Your task to perform on an android device: Open calendar and show me the third week of next month Image 0: 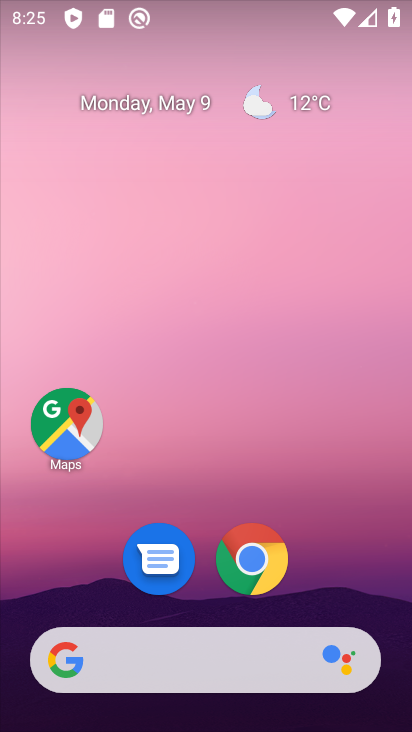
Step 0: drag from (379, 666) to (258, 115)
Your task to perform on an android device: Open calendar and show me the third week of next month Image 1: 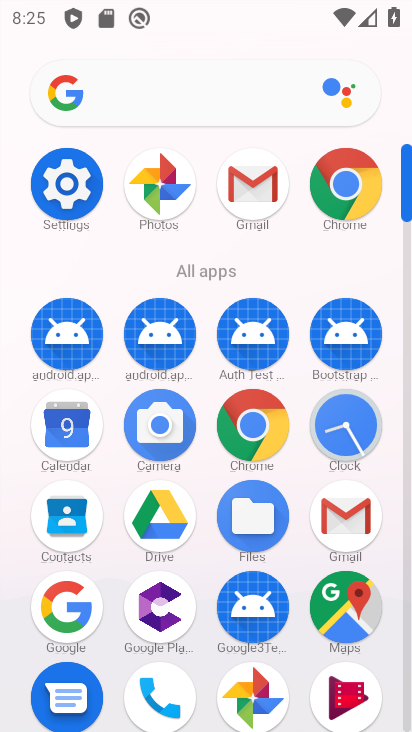
Step 1: click (73, 425)
Your task to perform on an android device: Open calendar and show me the third week of next month Image 2: 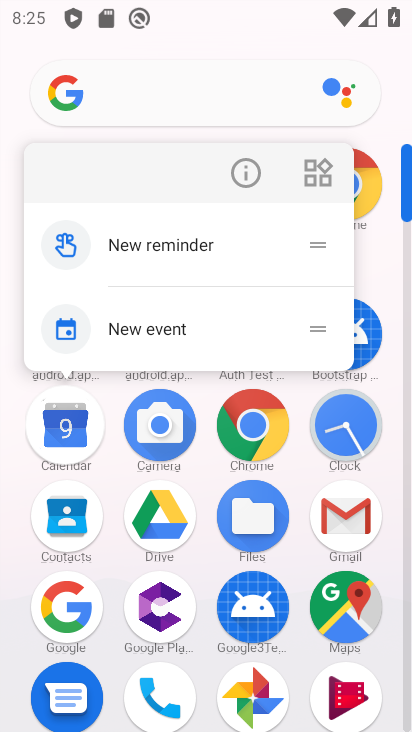
Step 2: click (57, 424)
Your task to perform on an android device: Open calendar and show me the third week of next month Image 3: 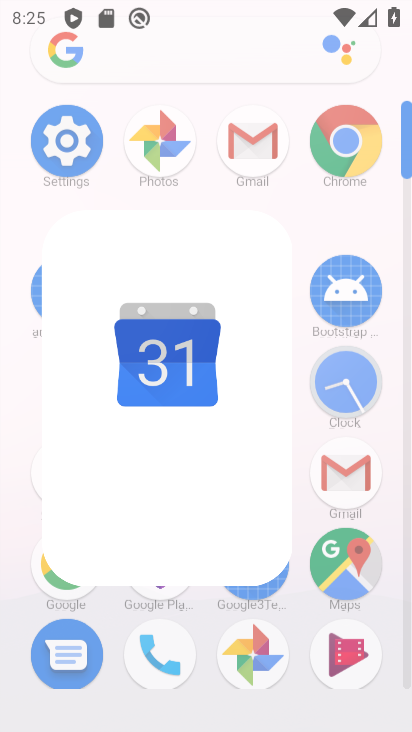
Step 3: click (53, 417)
Your task to perform on an android device: Open calendar and show me the third week of next month Image 4: 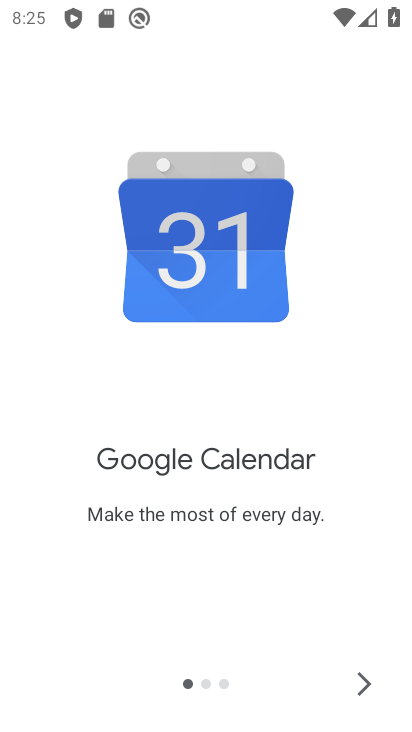
Step 4: click (355, 685)
Your task to perform on an android device: Open calendar and show me the third week of next month Image 5: 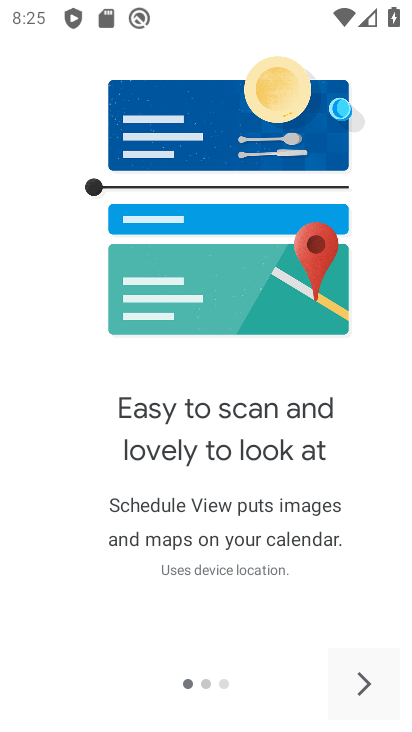
Step 5: click (355, 685)
Your task to perform on an android device: Open calendar and show me the third week of next month Image 6: 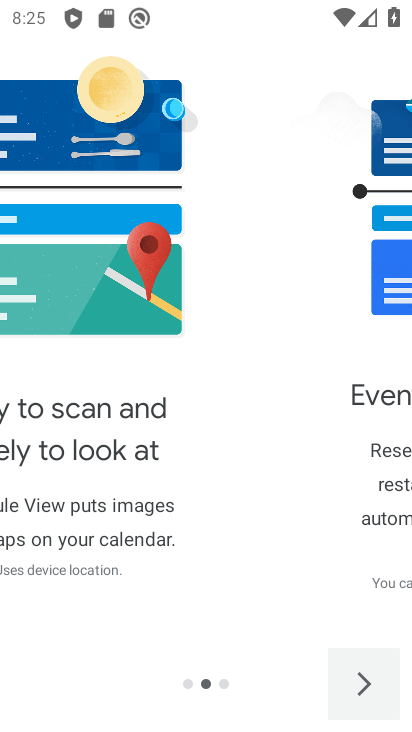
Step 6: click (355, 684)
Your task to perform on an android device: Open calendar and show me the third week of next month Image 7: 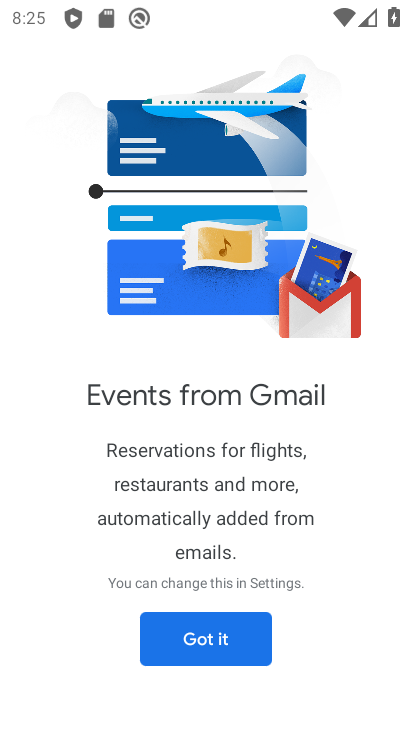
Step 7: click (208, 647)
Your task to perform on an android device: Open calendar and show me the third week of next month Image 8: 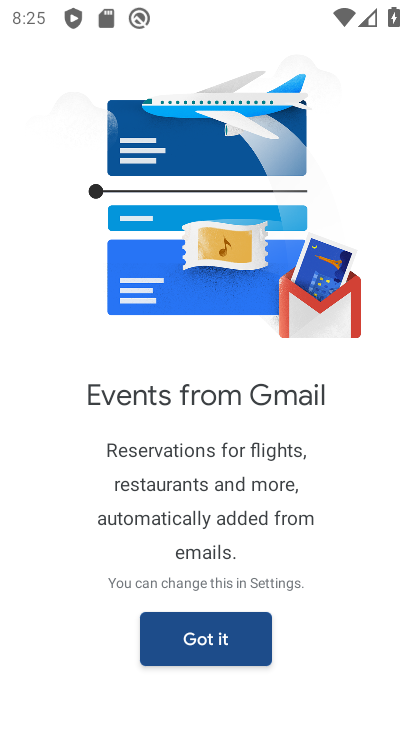
Step 8: click (208, 646)
Your task to perform on an android device: Open calendar and show me the third week of next month Image 9: 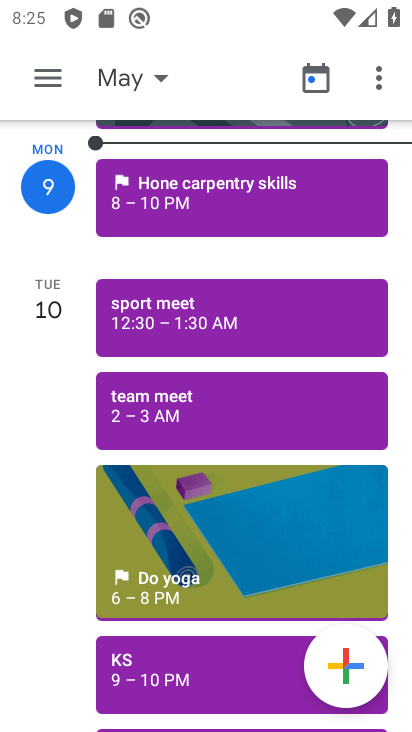
Step 9: drag from (206, 403) to (227, 222)
Your task to perform on an android device: Open calendar and show me the third week of next month Image 10: 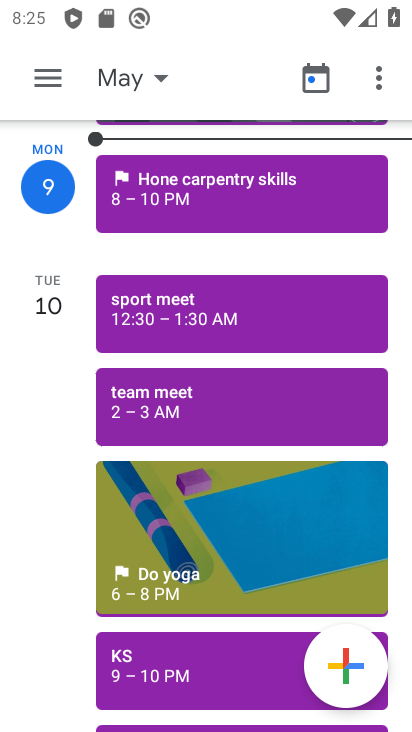
Step 10: drag from (187, 449) to (181, 269)
Your task to perform on an android device: Open calendar and show me the third week of next month Image 11: 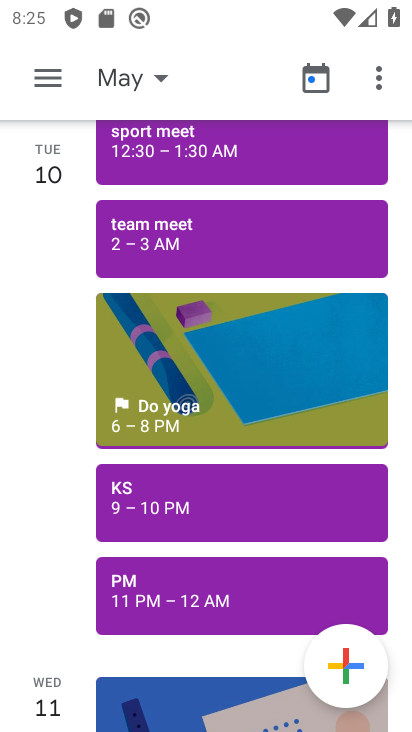
Step 11: drag from (166, 426) to (146, 139)
Your task to perform on an android device: Open calendar and show me the third week of next month Image 12: 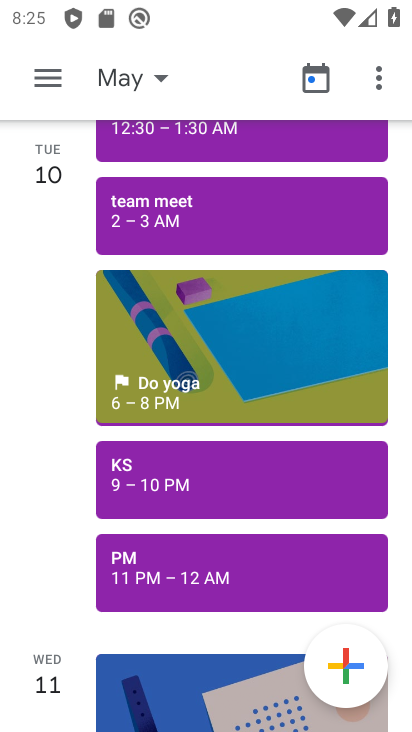
Step 12: drag from (107, 259) to (147, 500)
Your task to perform on an android device: Open calendar and show me the third week of next month Image 13: 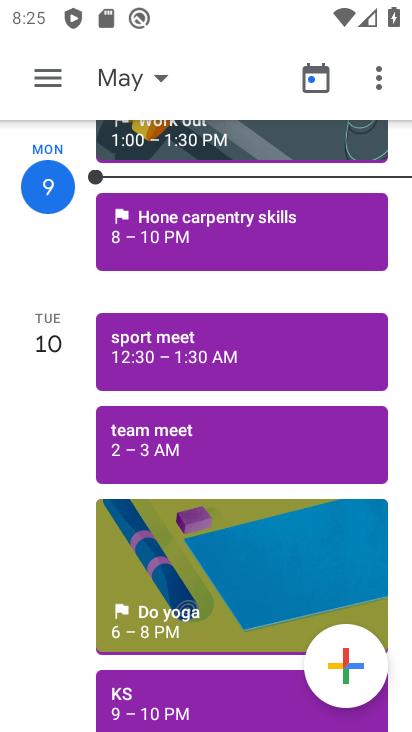
Step 13: click (161, 77)
Your task to perform on an android device: Open calendar and show me the third week of next month Image 14: 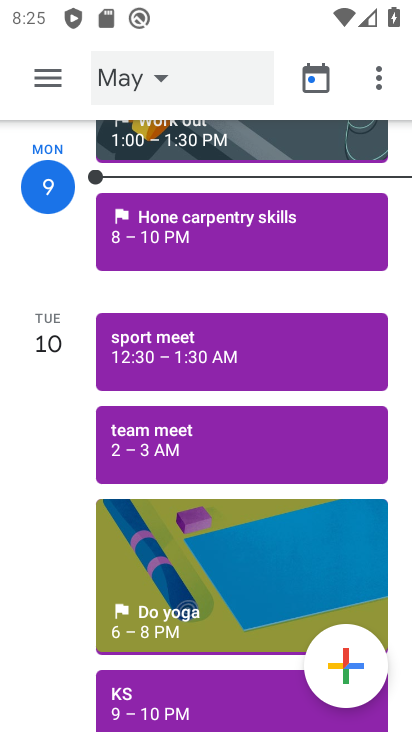
Step 14: click (162, 79)
Your task to perform on an android device: Open calendar and show me the third week of next month Image 15: 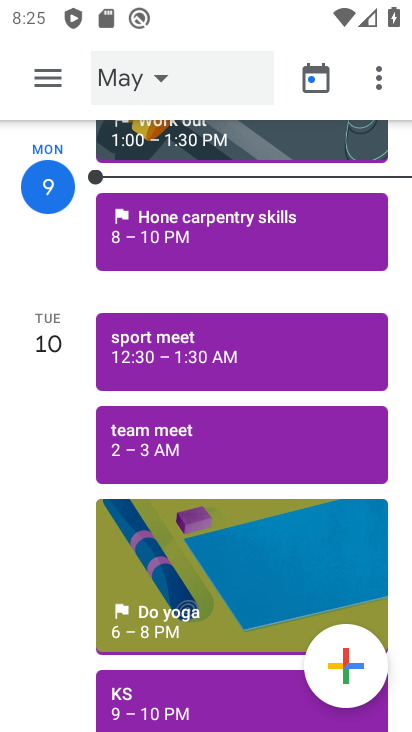
Step 15: click (162, 78)
Your task to perform on an android device: Open calendar and show me the third week of next month Image 16: 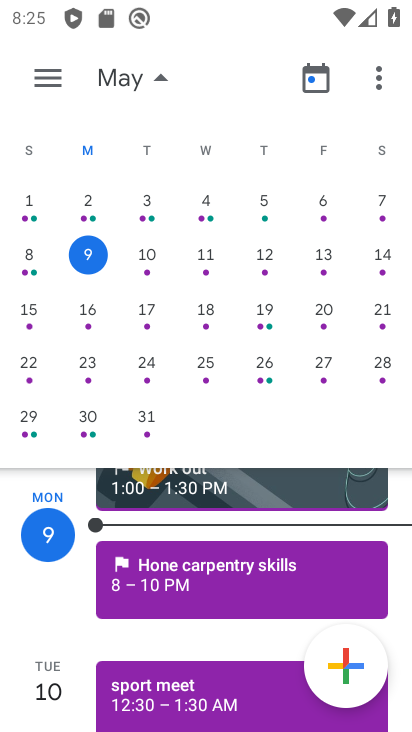
Step 16: drag from (215, 319) to (57, 294)
Your task to perform on an android device: Open calendar and show me the third week of next month Image 17: 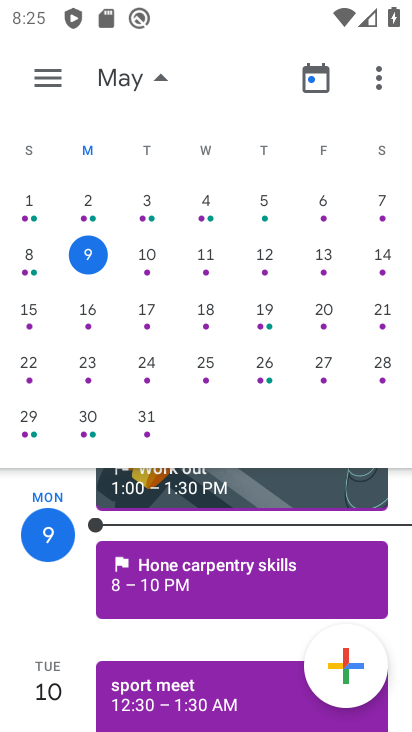
Step 17: drag from (211, 317) to (10, 356)
Your task to perform on an android device: Open calendar and show me the third week of next month Image 18: 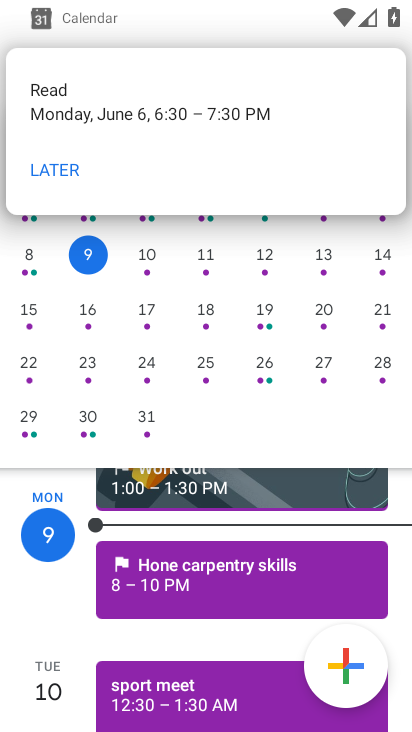
Step 18: drag from (210, 301) to (78, 294)
Your task to perform on an android device: Open calendar and show me the third week of next month Image 19: 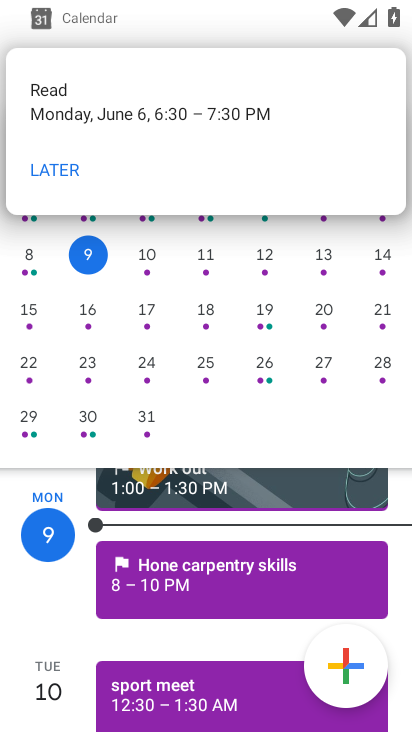
Step 19: click (47, 165)
Your task to perform on an android device: Open calendar and show me the third week of next month Image 20: 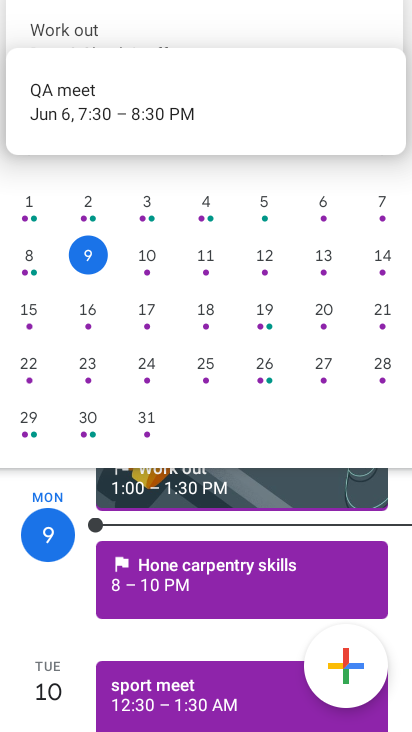
Step 20: click (157, 174)
Your task to perform on an android device: Open calendar and show me the third week of next month Image 21: 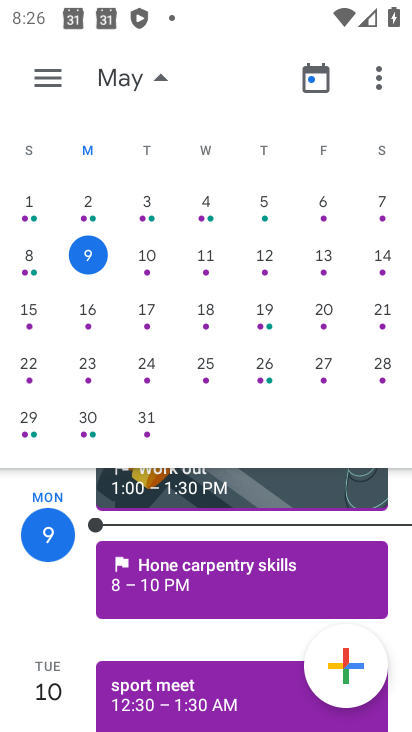
Step 21: click (157, 174)
Your task to perform on an android device: Open calendar and show me the third week of next month Image 22: 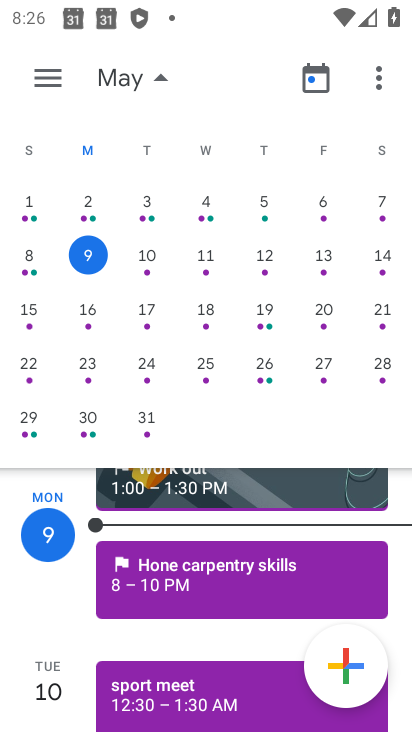
Step 22: click (157, 174)
Your task to perform on an android device: Open calendar and show me the third week of next month Image 23: 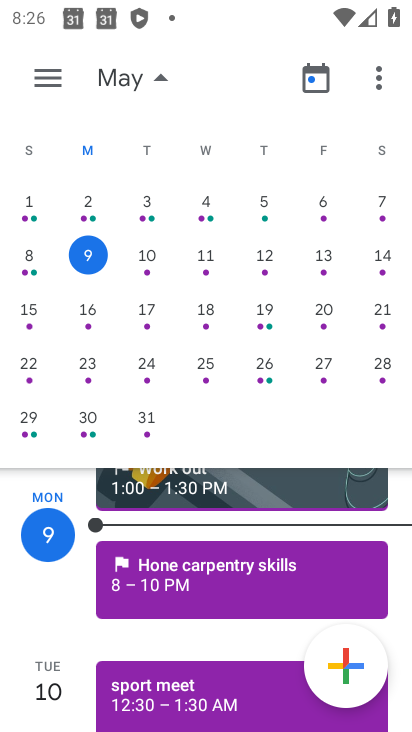
Step 23: drag from (171, 314) to (32, 262)
Your task to perform on an android device: Open calendar and show me the third week of next month Image 24: 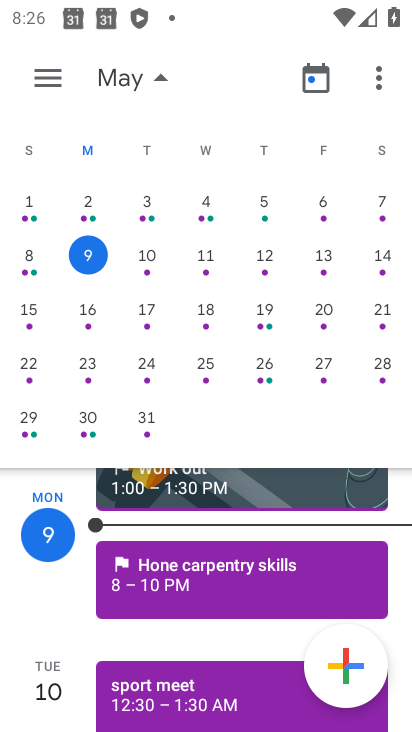
Step 24: drag from (204, 331) to (8, 299)
Your task to perform on an android device: Open calendar and show me the third week of next month Image 25: 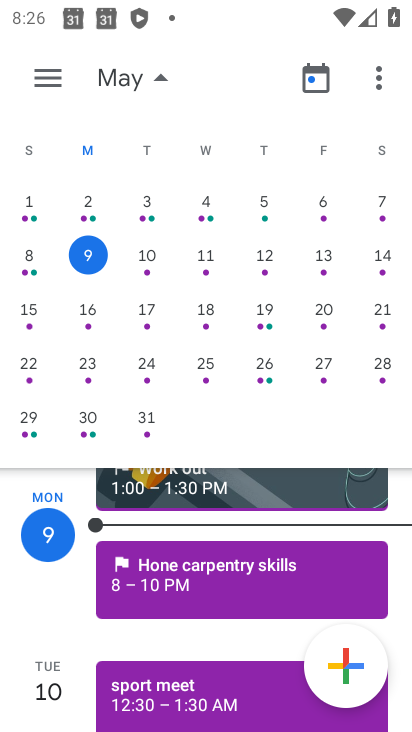
Step 25: drag from (159, 304) to (11, 349)
Your task to perform on an android device: Open calendar and show me the third week of next month Image 26: 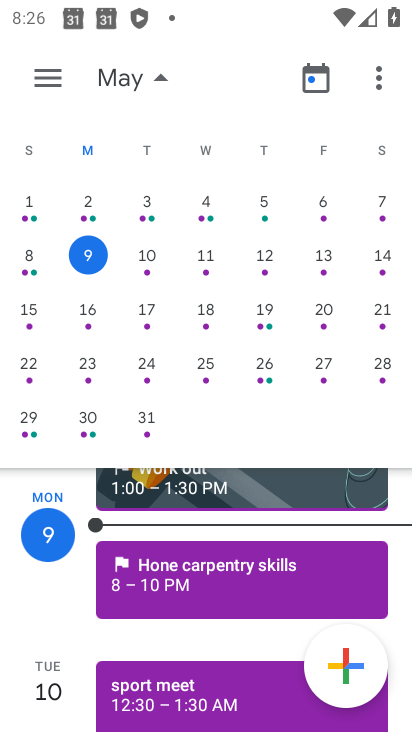
Step 26: drag from (223, 285) to (127, 344)
Your task to perform on an android device: Open calendar and show me the third week of next month Image 27: 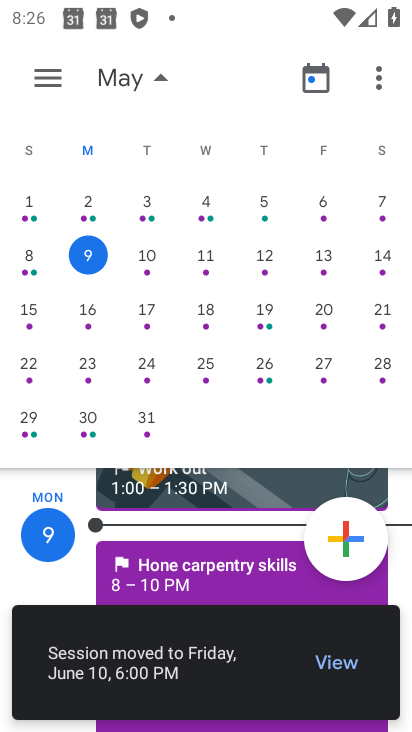
Step 27: drag from (151, 301) to (39, 316)
Your task to perform on an android device: Open calendar and show me the third week of next month Image 28: 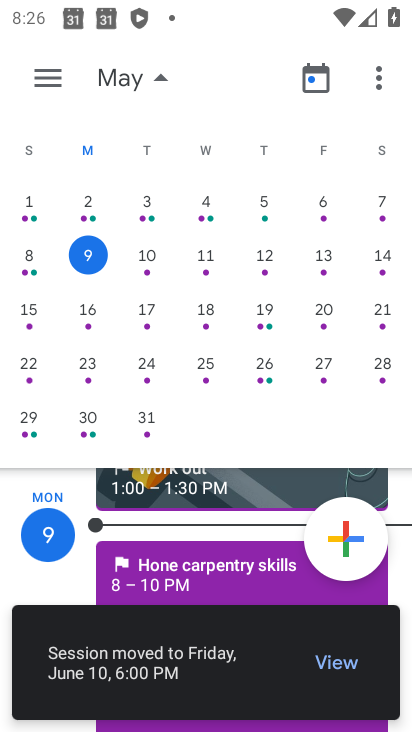
Step 28: drag from (230, 325) to (47, 318)
Your task to perform on an android device: Open calendar and show me the third week of next month Image 29: 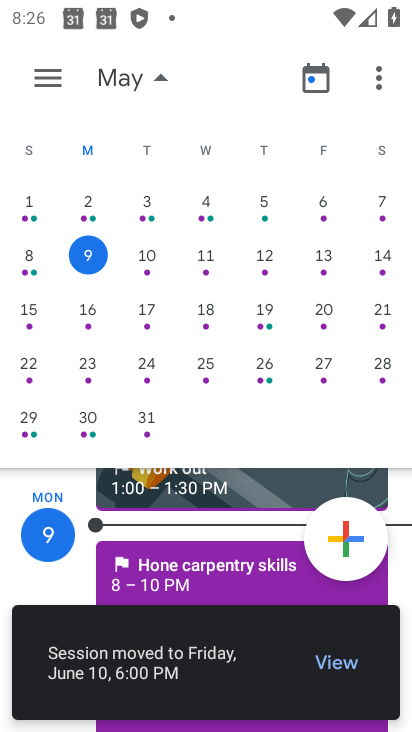
Step 29: drag from (184, 292) to (73, 328)
Your task to perform on an android device: Open calendar and show me the third week of next month Image 30: 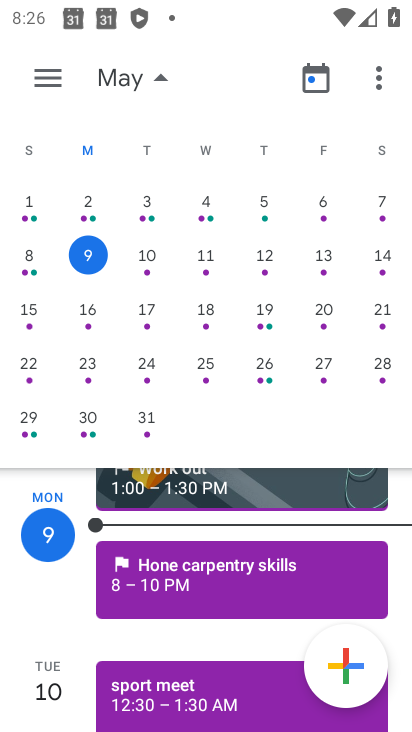
Step 30: drag from (155, 311) to (7, 304)
Your task to perform on an android device: Open calendar and show me the third week of next month Image 31: 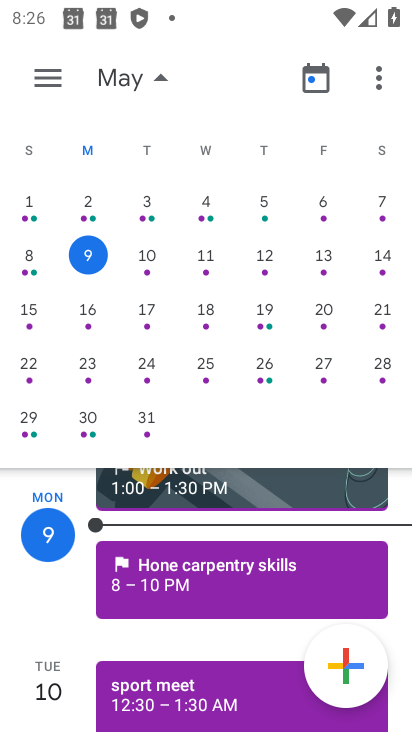
Step 31: drag from (228, 375) to (167, 379)
Your task to perform on an android device: Open calendar and show me the third week of next month Image 32: 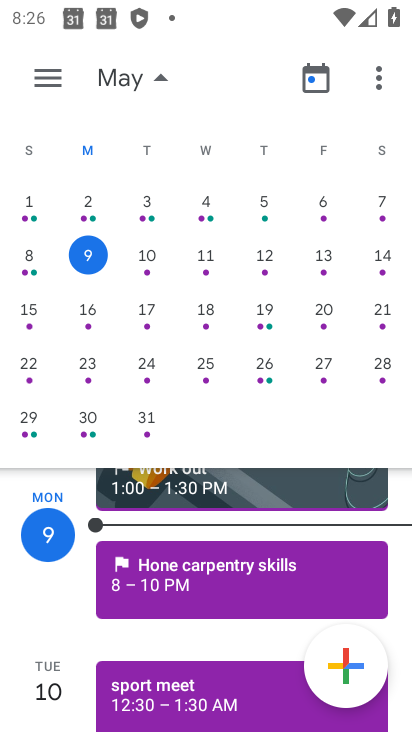
Step 32: drag from (180, 323) to (28, 348)
Your task to perform on an android device: Open calendar and show me the third week of next month Image 33: 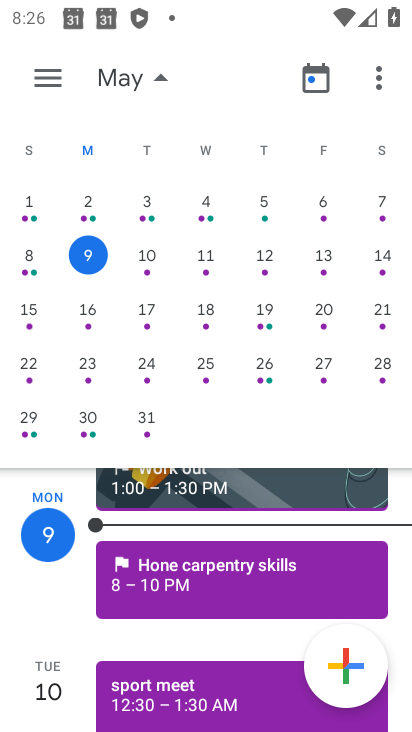
Step 33: click (139, 329)
Your task to perform on an android device: Open calendar and show me the third week of next month Image 34: 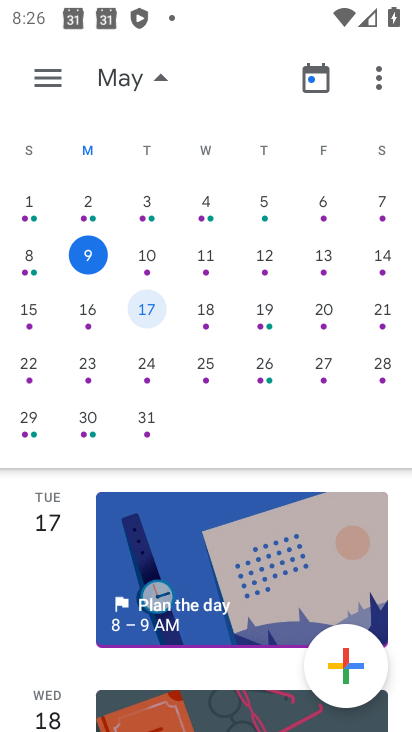
Step 34: task complete